Your task to perform on an android device: Open the phone app and click the voicemail tab. Image 0: 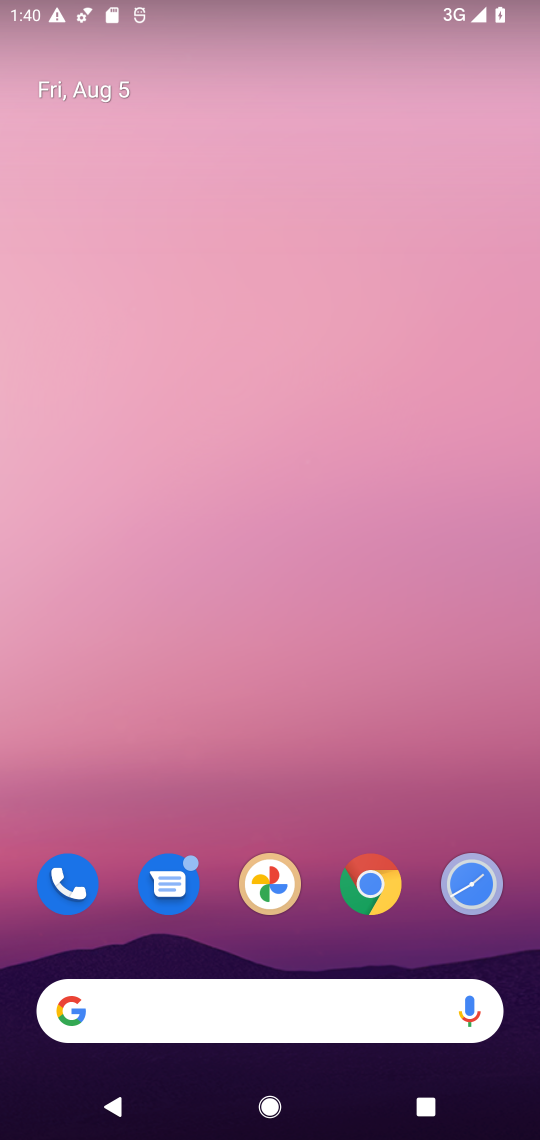
Step 0: click (535, 708)
Your task to perform on an android device: Open the phone app and click the voicemail tab. Image 1: 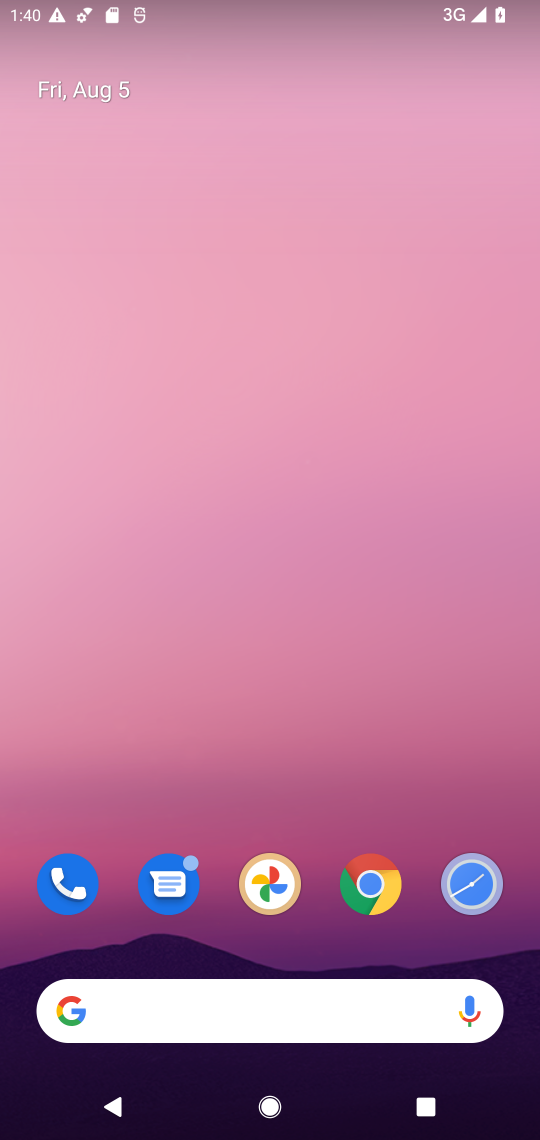
Step 1: drag from (410, 952) to (268, 46)
Your task to perform on an android device: Open the phone app and click the voicemail tab. Image 2: 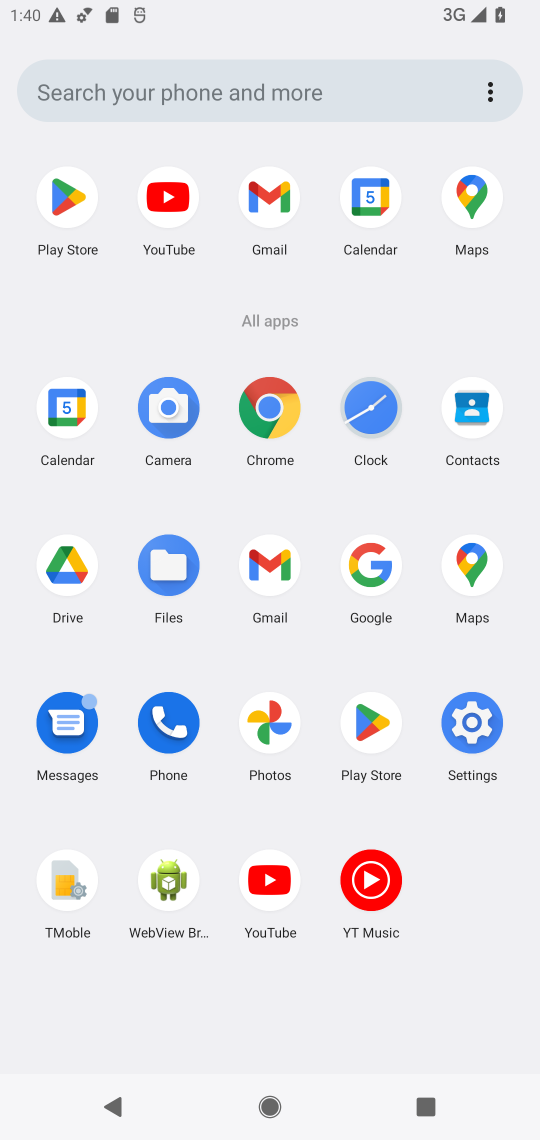
Step 2: click (179, 722)
Your task to perform on an android device: Open the phone app and click the voicemail tab. Image 3: 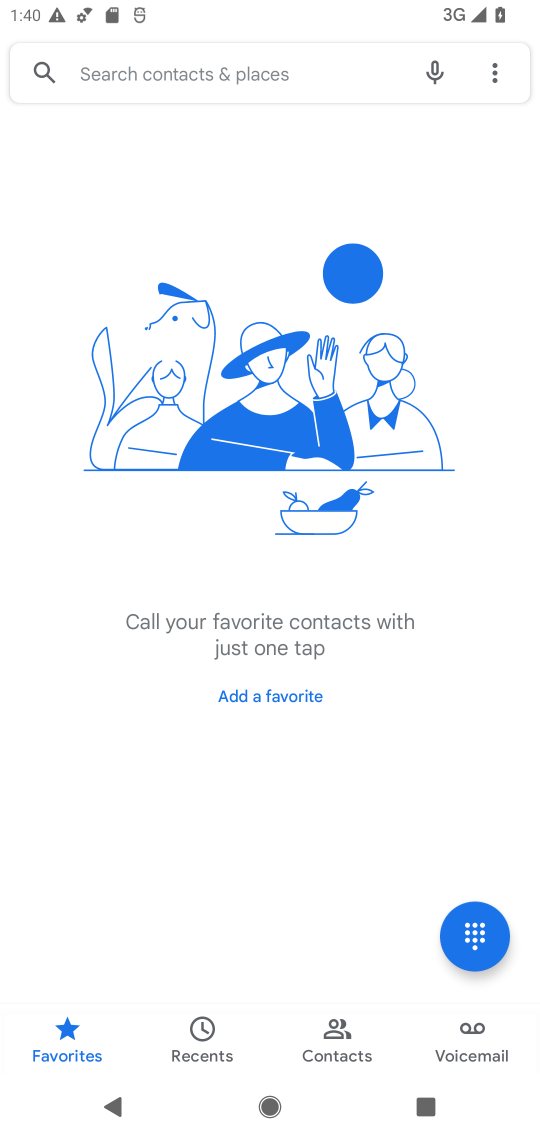
Step 3: click (458, 1061)
Your task to perform on an android device: Open the phone app and click the voicemail tab. Image 4: 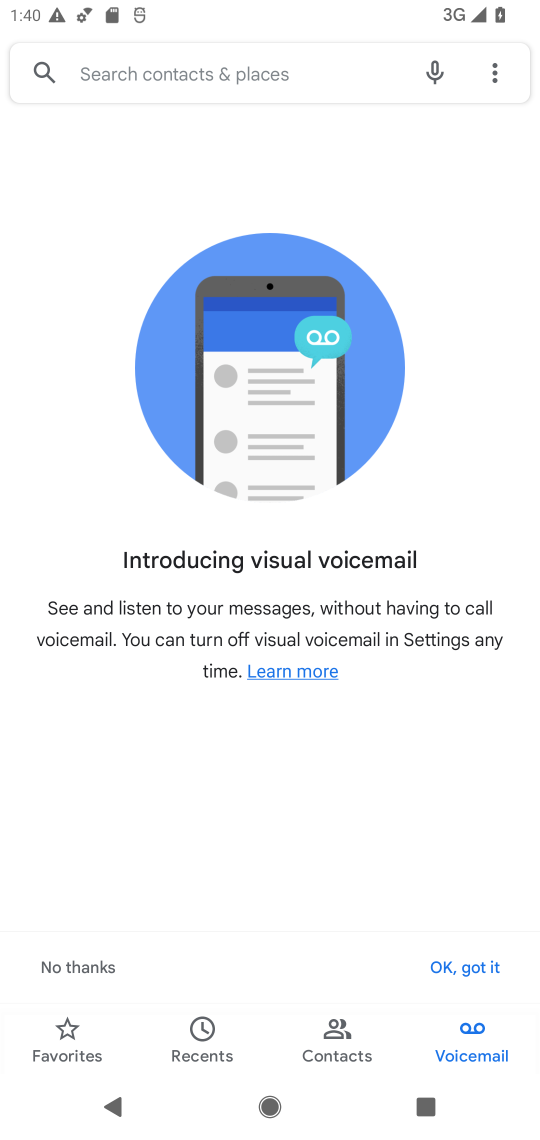
Step 4: task complete